Your task to perform on an android device: Open location settings Image 0: 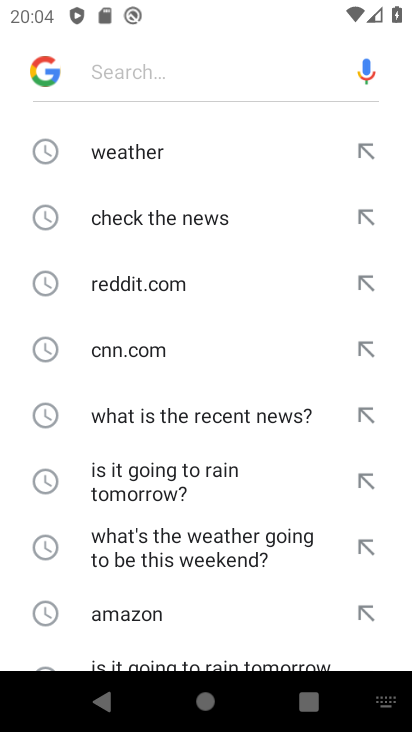
Step 0: press home button
Your task to perform on an android device: Open location settings Image 1: 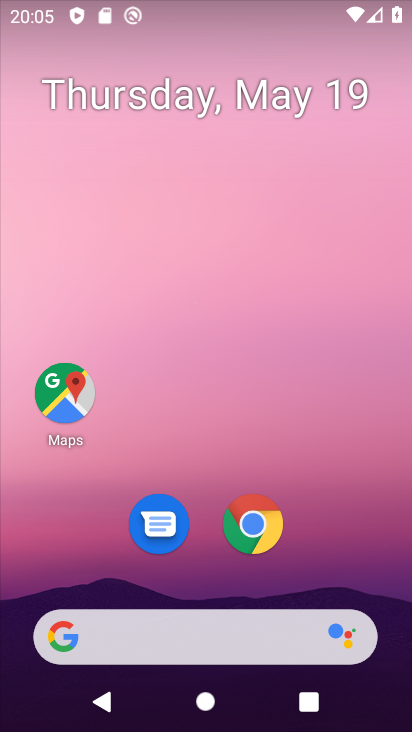
Step 1: drag from (331, 543) to (370, 67)
Your task to perform on an android device: Open location settings Image 2: 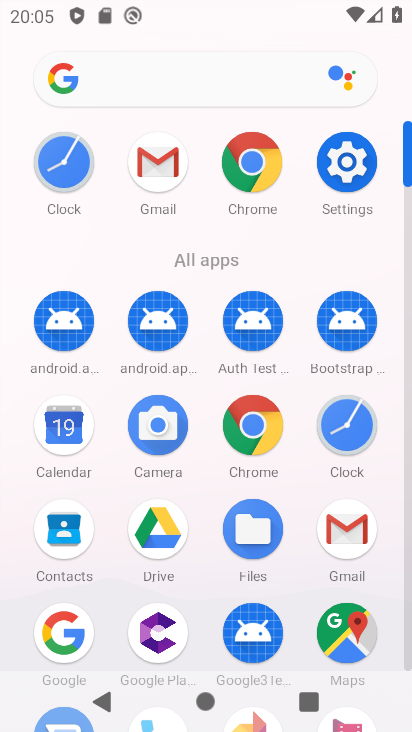
Step 2: click (355, 167)
Your task to perform on an android device: Open location settings Image 3: 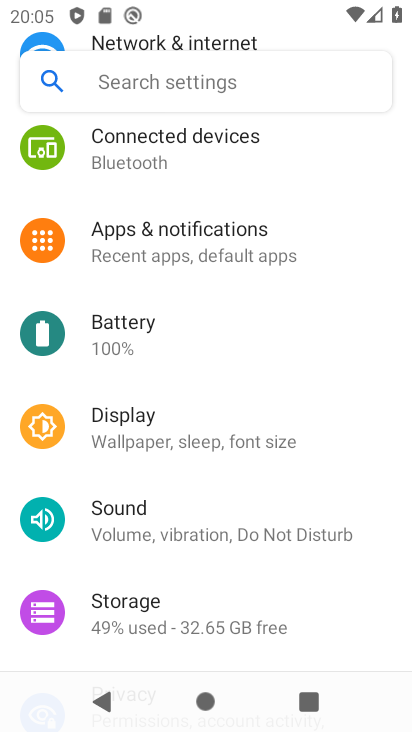
Step 3: drag from (185, 458) to (193, 253)
Your task to perform on an android device: Open location settings Image 4: 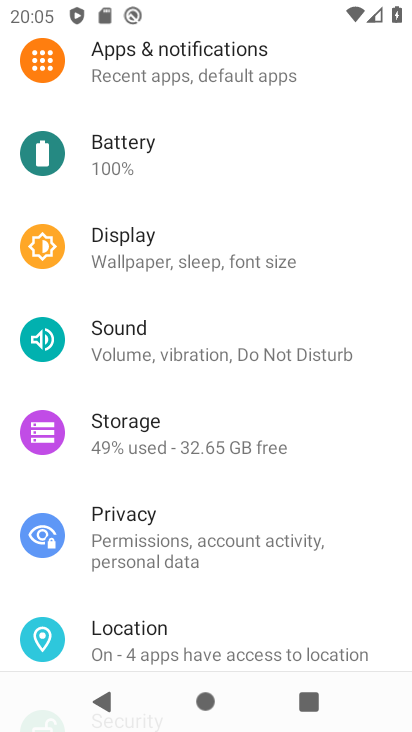
Step 4: click (185, 633)
Your task to perform on an android device: Open location settings Image 5: 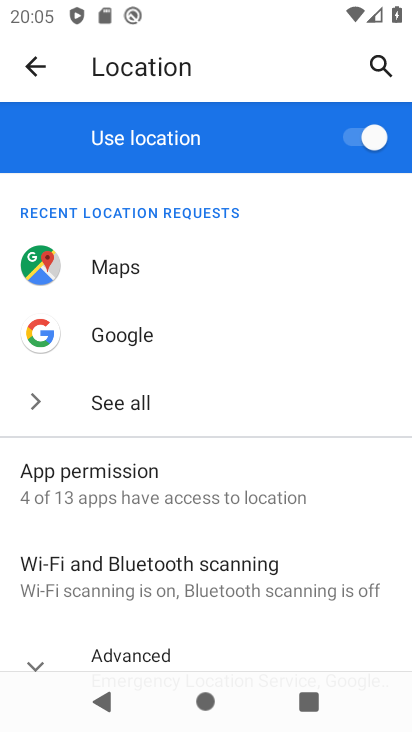
Step 5: task complete